Your task to perform on an android device: Open the phone app and click the voicemail tab. Image 0: 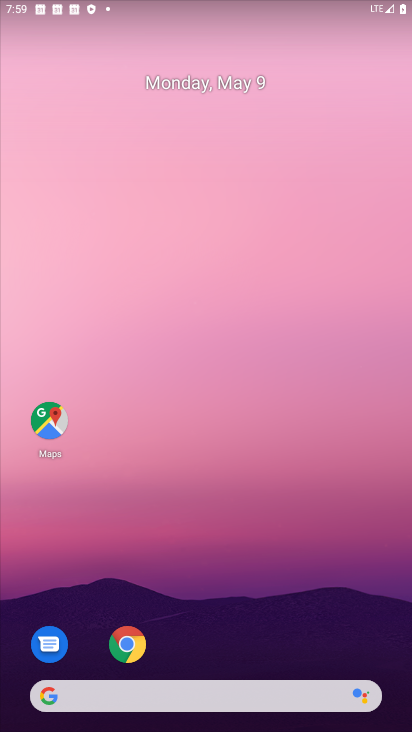
Step 0: click (126, 636)
Your task to perform on an android device: Open the phone app and click the voicemail tab. Image 1: 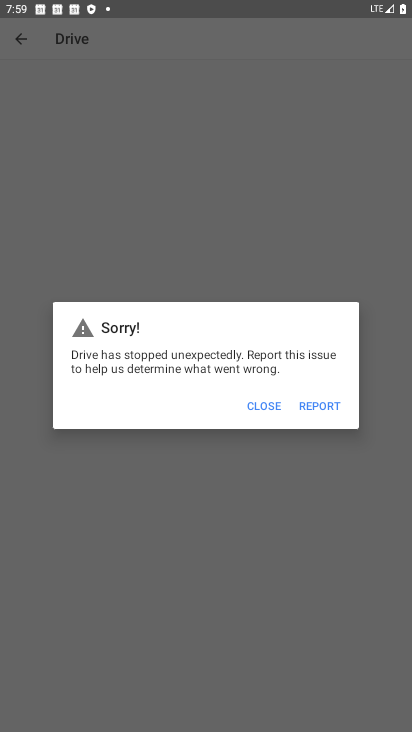
Step 1: press home button
Your task to perform on an android device: Open the phone app and click the voicemail tab. Image 2: 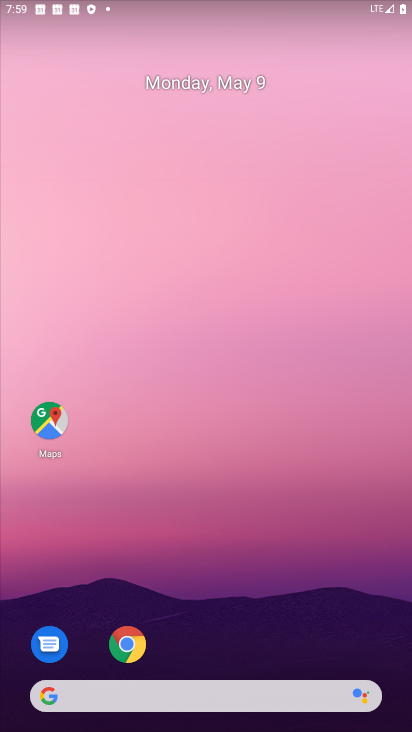
Step 2: drag from (186, 655) to (241, 334)
Your task to perform on an android device: Open the phone app and click the voicemail tab. Image 3: 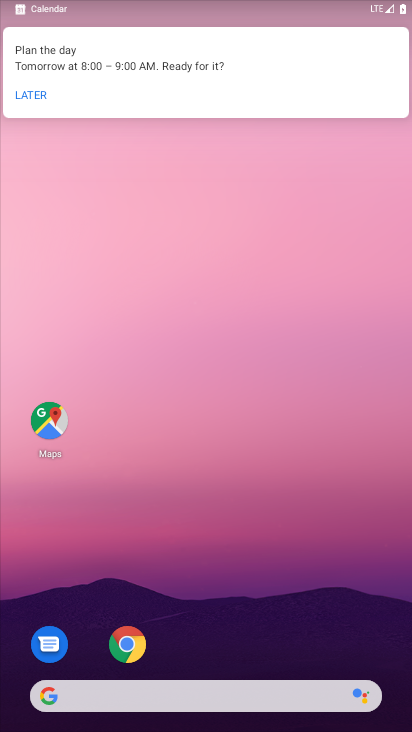
Step 3: drag from (167, 630) to (234, 216)
Your task to perform on an android device: Open the phone app and click the voicemail tab. Image 4: 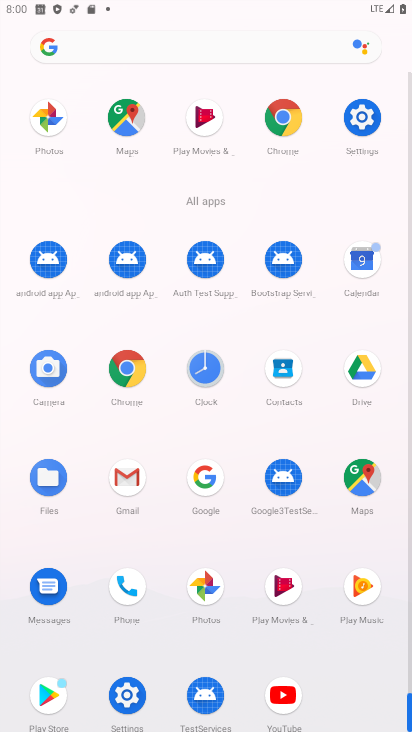
Step 4: drag from (154, 175) to (240, 180)
Your task to perform on an android device: Open the phone app and click the voicemail tab. Image 5: 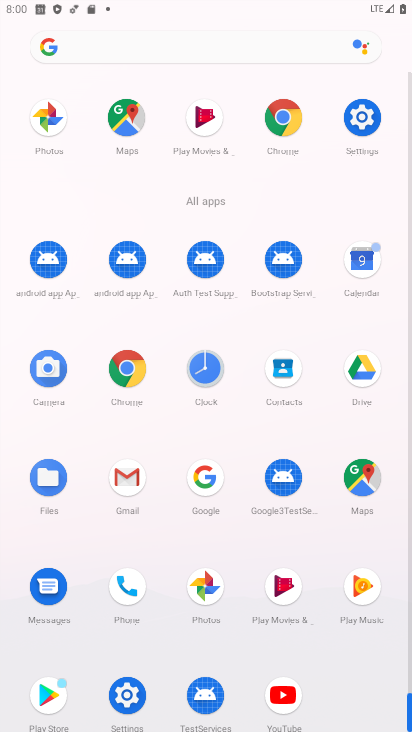
Step 5: click (134, 578)
Your task to perform on an android device: Open the phone app and click the voicemail tab. Image 6: 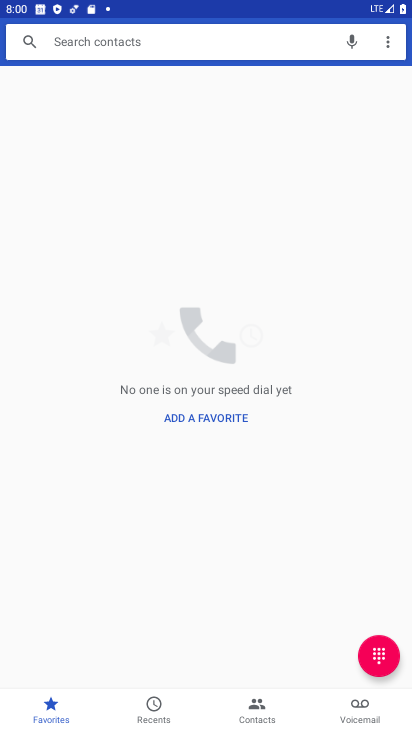
Step 6: click (346, 717)
Your task to perform on an android device: Open the phone app and click the voicemail tab. Image 7: 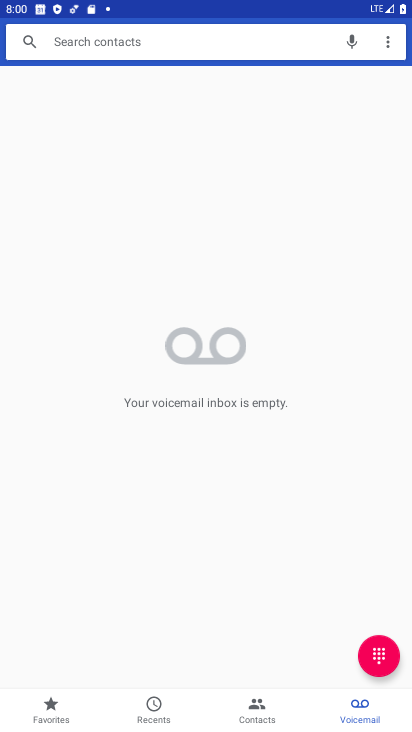
Step 7: task complete